Your task to perform on an android device: What is the recent news? Image 0: 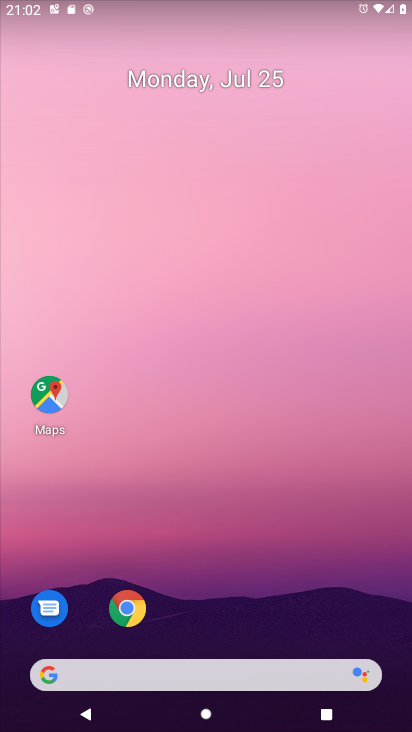
Step 0: click (213, 666)
Your task to perform on an android device: What is the recent news? Image 1: 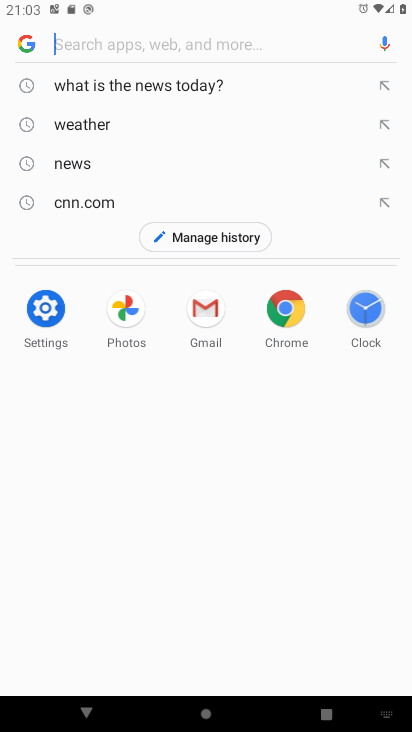
Step 1: type "what is the recent new"
Your task to perform on an android device: What is the recent news? Image 2: 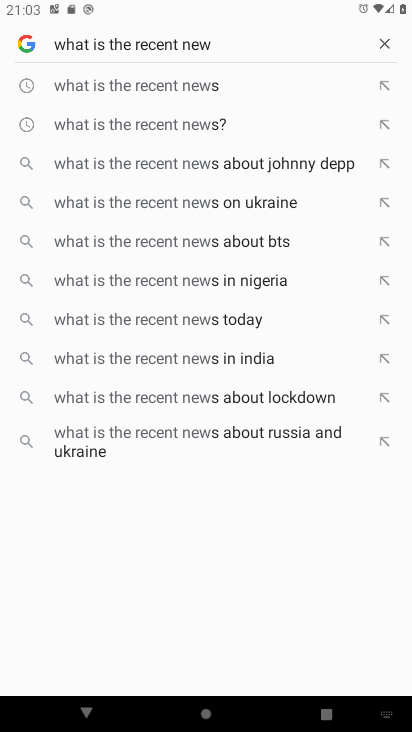
Step 2: click (150, 120)
Your task to perform on an android device: What is the recent news? Image 3: 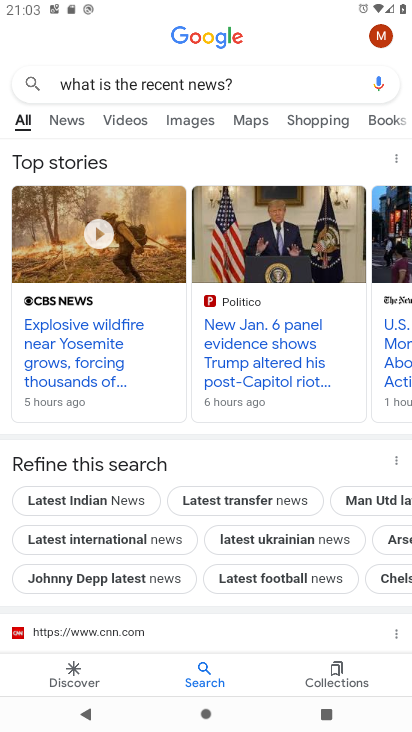
Step 3: click (60, 117)
Your task to perform on an android device: What is the recent news? Image 4: 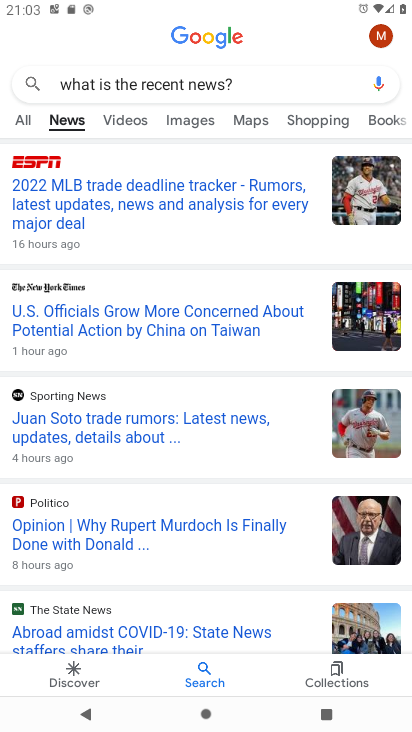
Step 4: task complete